Your task to perform on an android device: Open Google Maps Image 0: 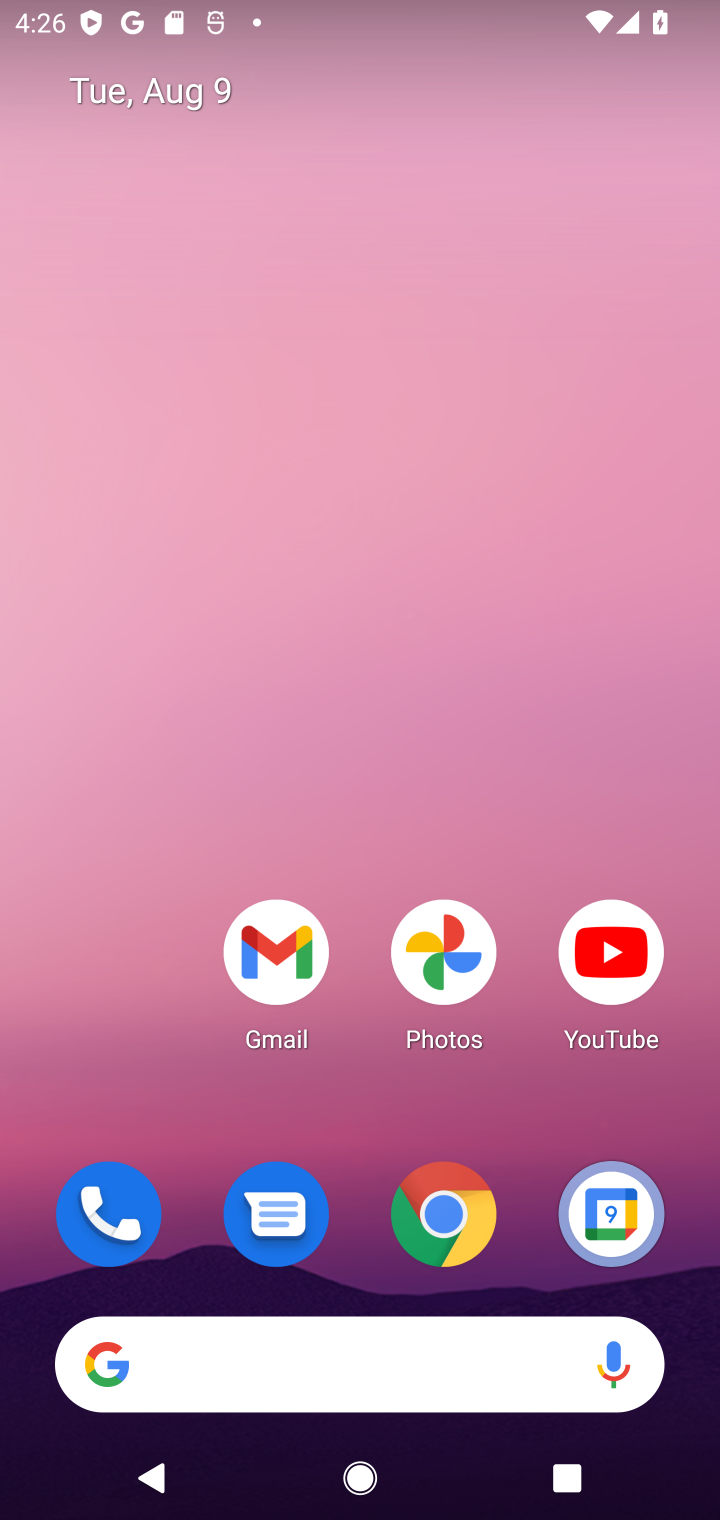
Step 0: drag from (458, 1393) to (297, 485)
Your task to perform on an android device: Open Google Maps Image 1: 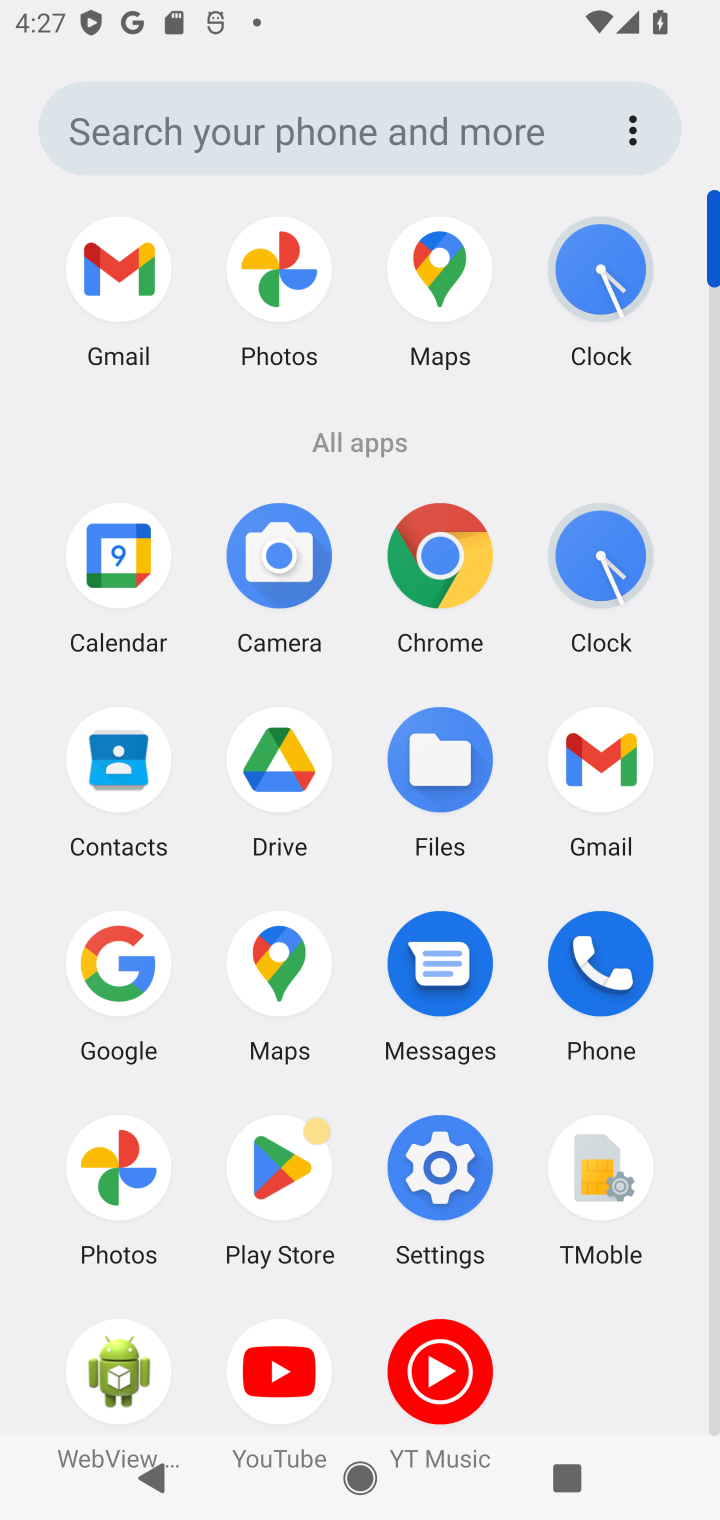
Step 1: click (278, 979)
Your task to perform on an android device: Open Google Maps Image 2: 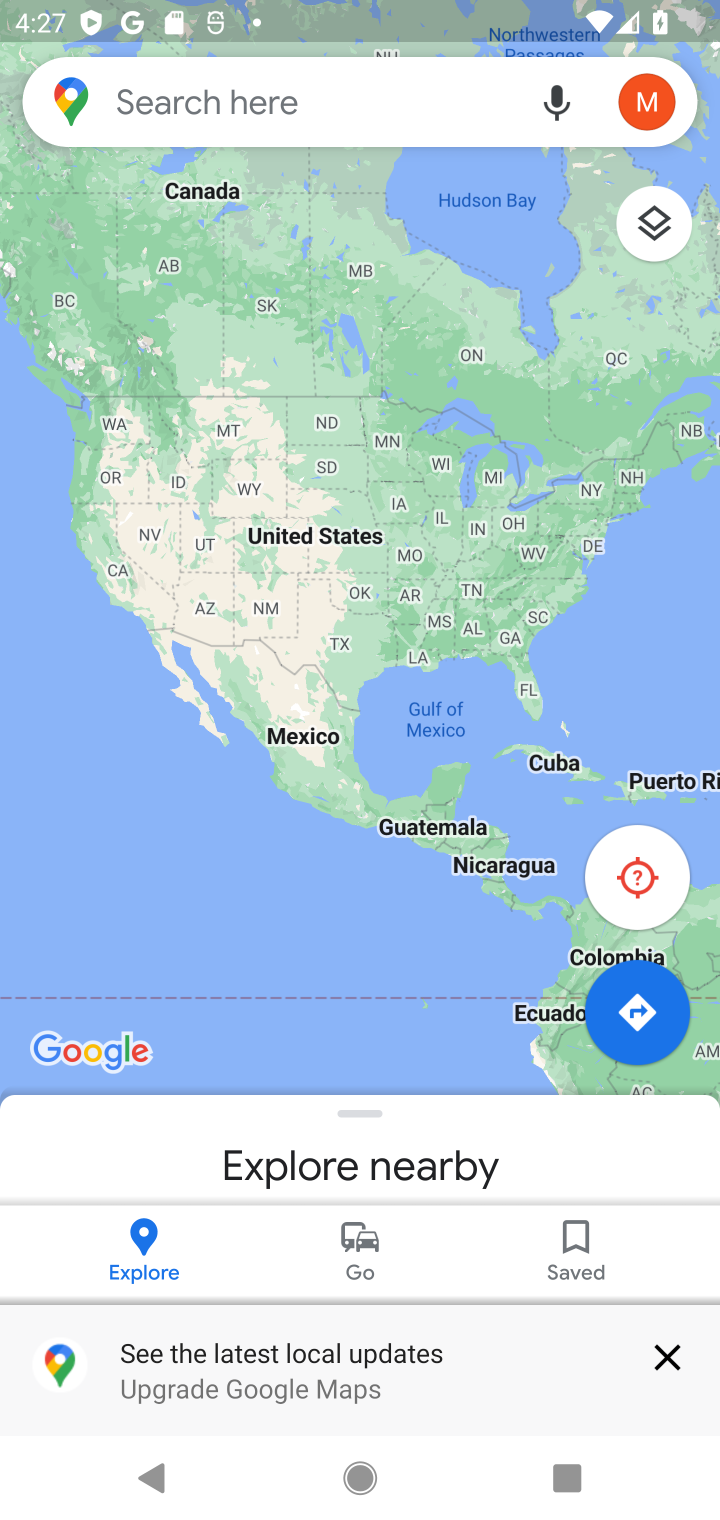
Step 2: click (669, 1358)
Your task to perform on an android device: Open Google Maps Image 3: 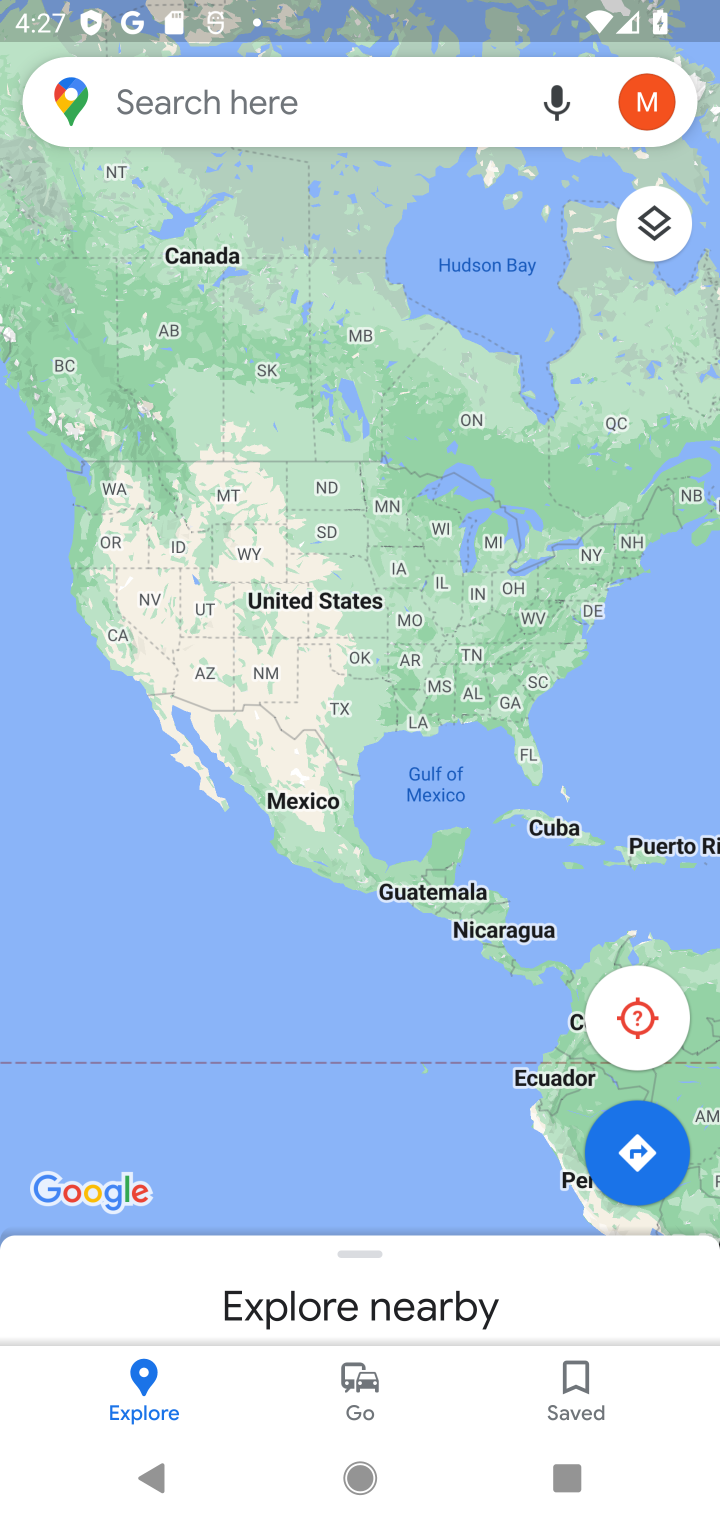
Step 3: click (638, 1001)
Your task to perform on an android device: Open Google Maps Image 4: 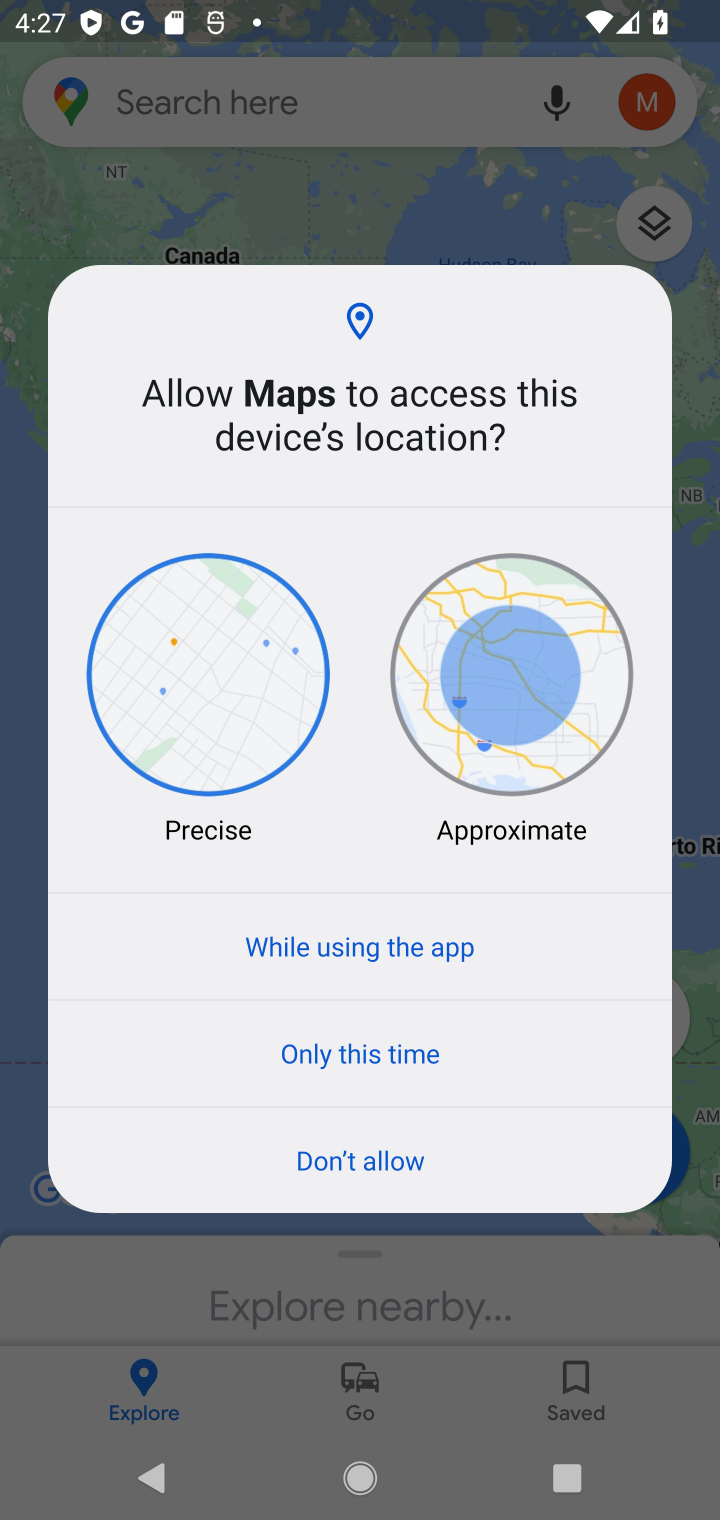
Step 4: click (564, 675)
Your task to perform on an android device: Open Google Maps Image 5: 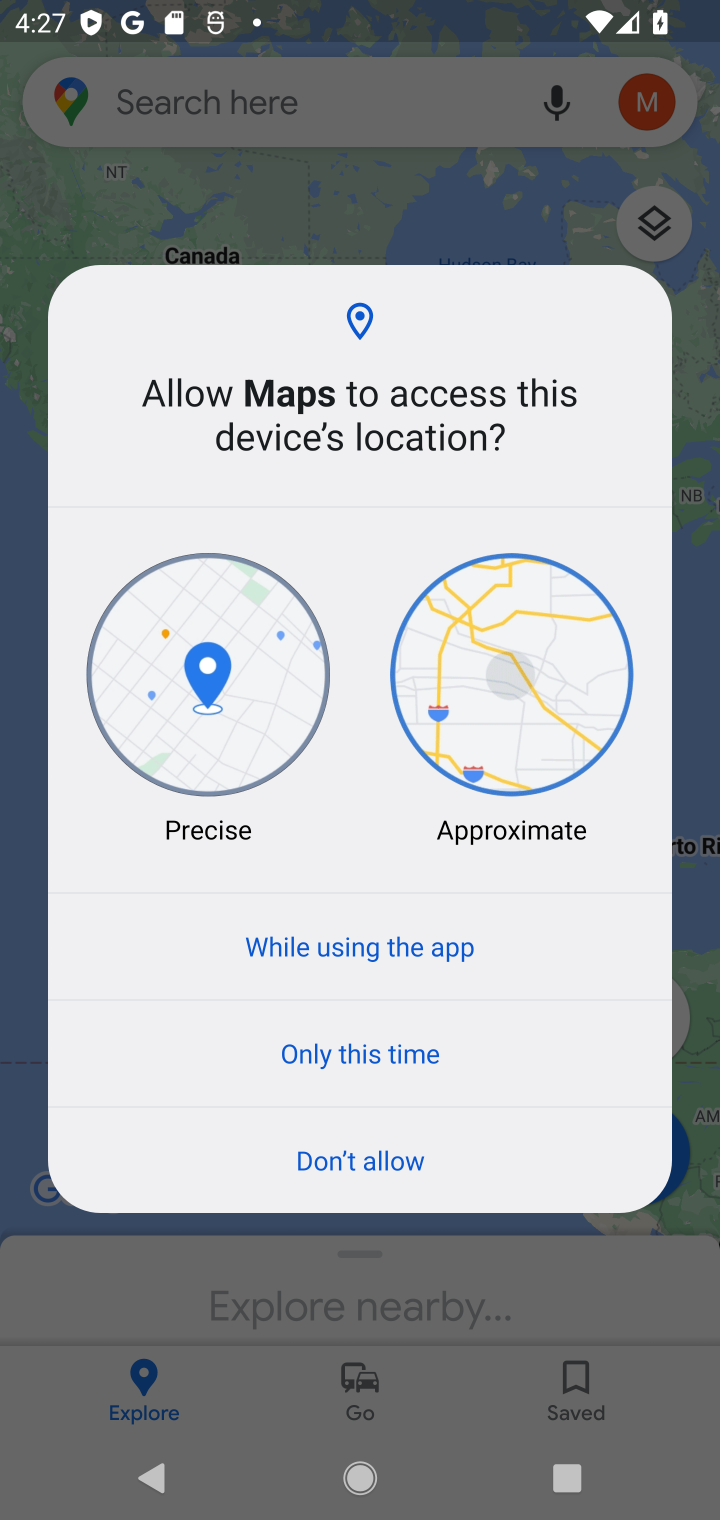
Step 5: click (377, 950)
Your task to perform on an android device: Open Google Maps Image 6: 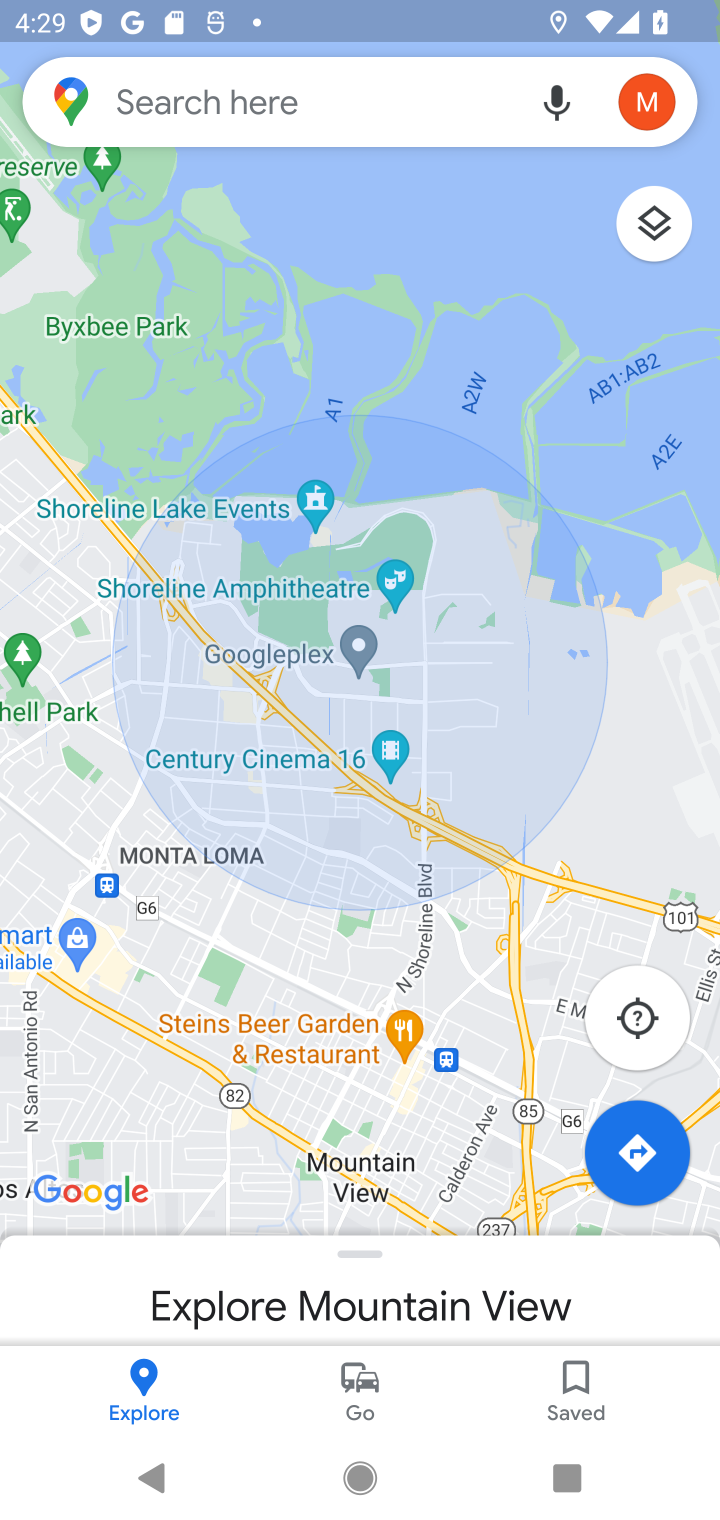
Step 6: task complete